Your task to perform on an android device: change your default location settings in chrome Image 0: 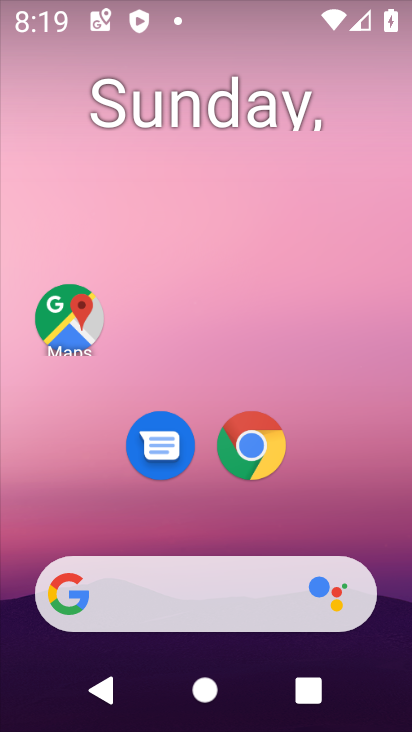
Step 0: drag from (23, 608) to (280, 214)
Your task to perform on an android device: change your default location settings in chrome Image 1: 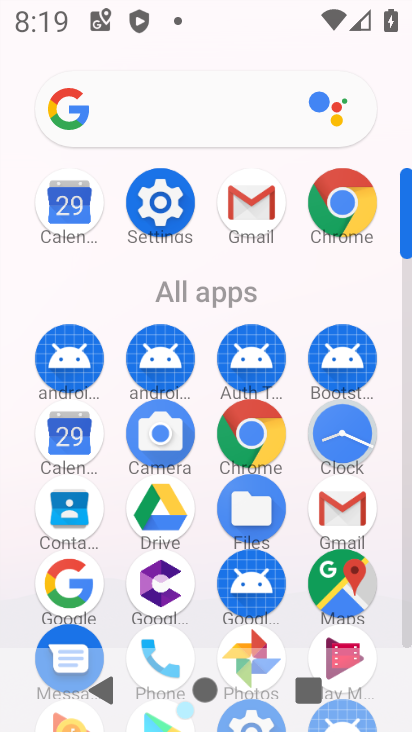
Step 1: click (148, 215)
Your task to perform on an android device: change your default location settings in chrome Image 2: 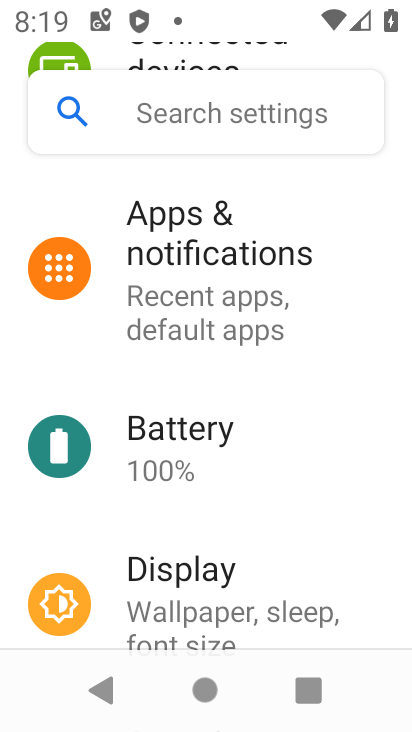
Step 2: drag from (12, 609) to (273, 137)
Your task to perform on an android device: change your default location settings in chrome Image 3: 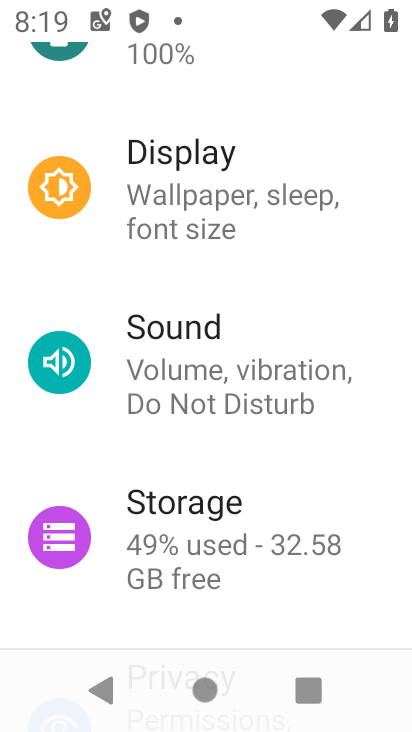
Step 3: drag from (0, 525) to (293, 103)
Your task to perform on an android device: change your default location settings in chrome Image 4: 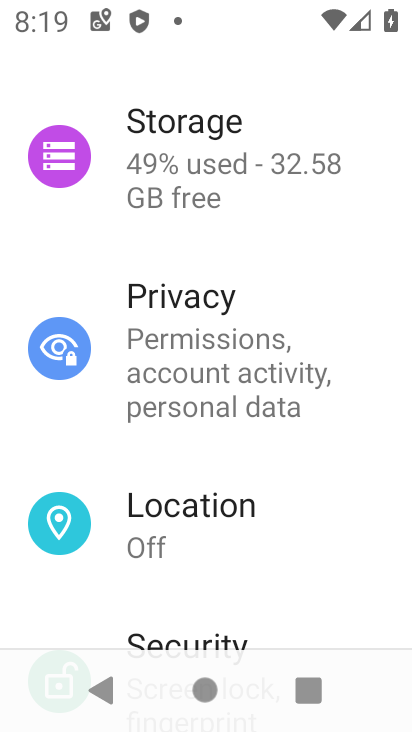
Step 4: click (105, 546)
Your task to perform on an android device: change your default location settings in chrome Image 5: 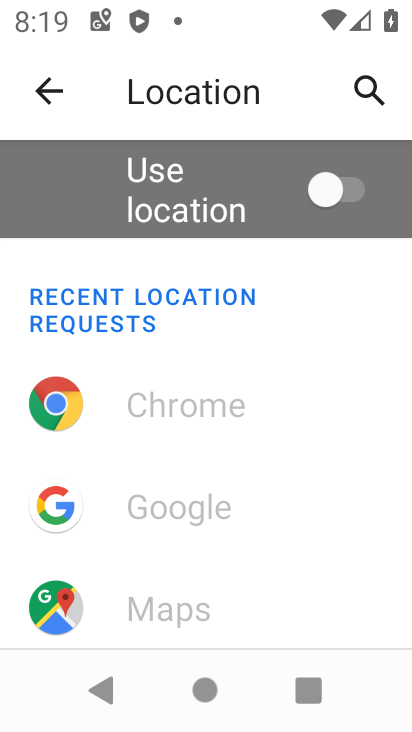
Step 5: click (251, 414)
Your task to perform on an android device: change your default location settings in chrome Image 6: 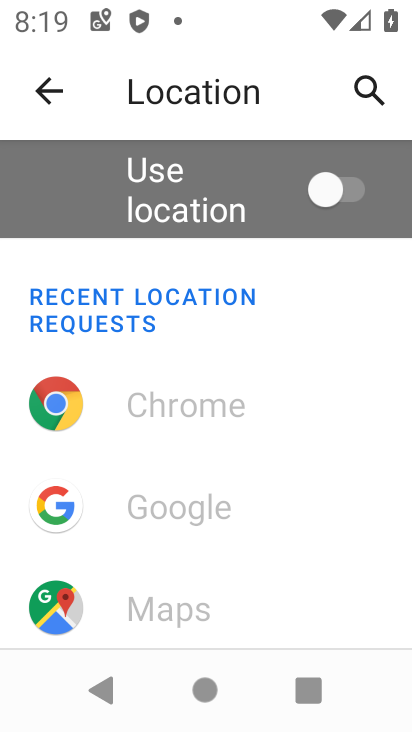
Step 6: click (47, 397)
Your task to perform on an android device: change your default location settings in chrome Image 7: 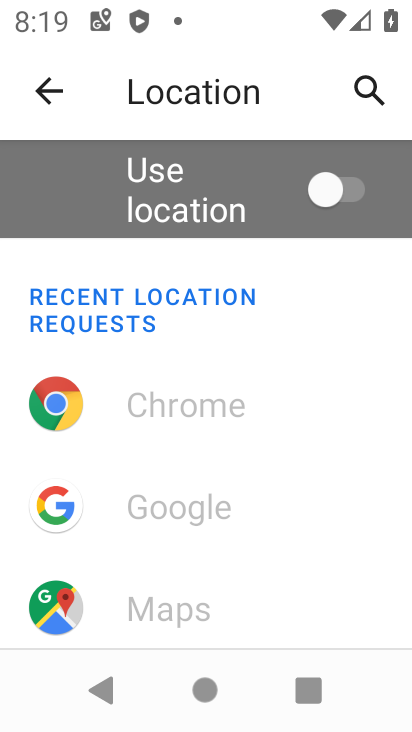
Step 7: task complete